Your task to perform on an android device: Search for vegetarian restaurants on Maps Image 0: 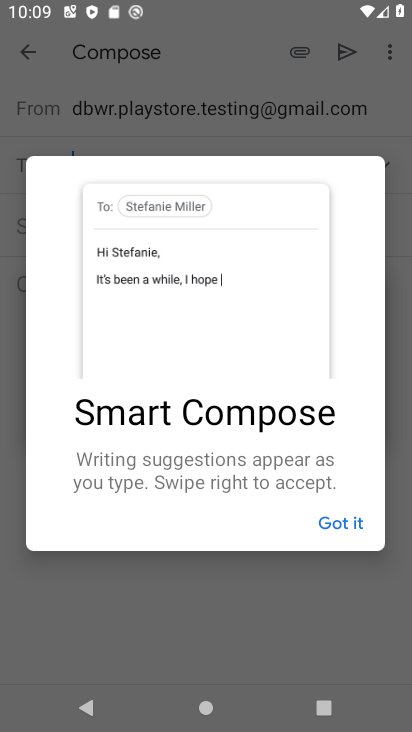
Step 0: press home button
Your task to perform on an android device: Search for vegetarian restaurants on Maps Image 1: 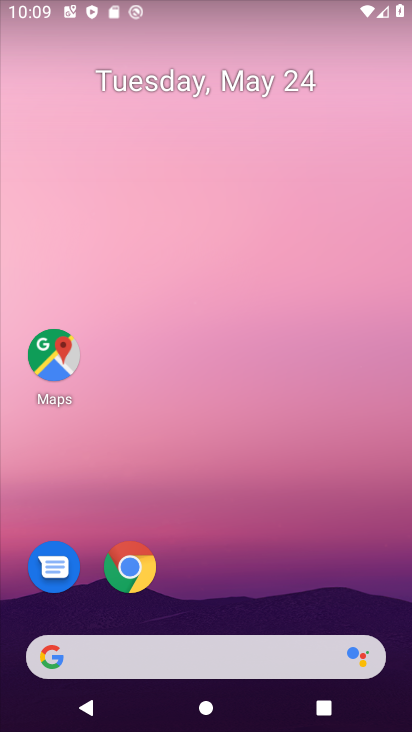
Step 1: click (55, 364)
Your task to perform on an android device: Search for vegetarian restaurants on Maps Image 2: 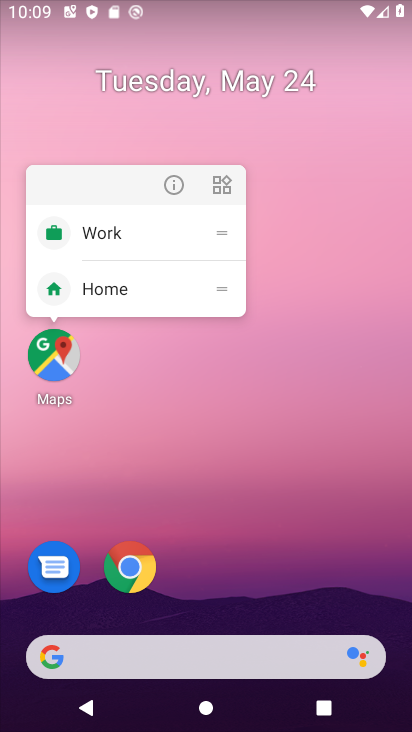
Step 2: click (55, 366)
Your task to perform on an android device: Search for vegetarian restaurants on Maps Image 3: 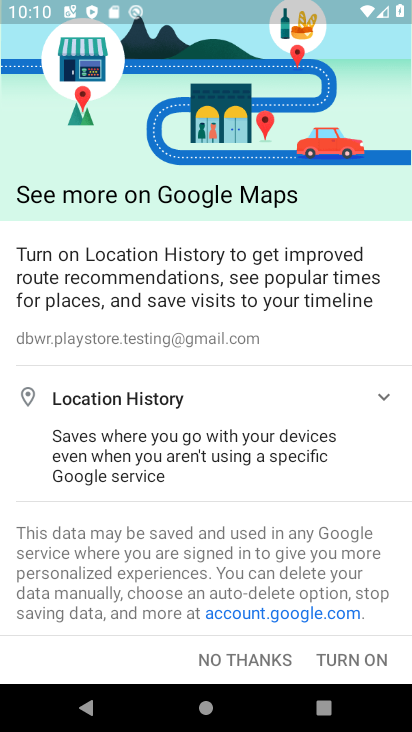
Step 3: press back button
Your task to perform on an android device: Search for vegetarian restaurants on Maps Image 4: 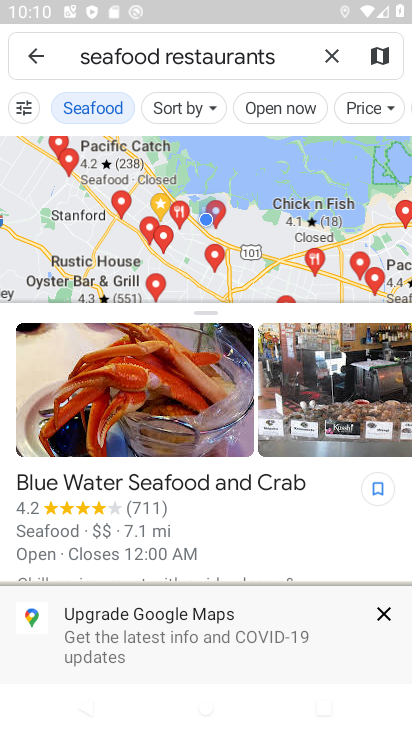
Step 4: click (330, 58)
Your task to perform on an android device: Search for vegetarian restaurants on Maps Image 5: 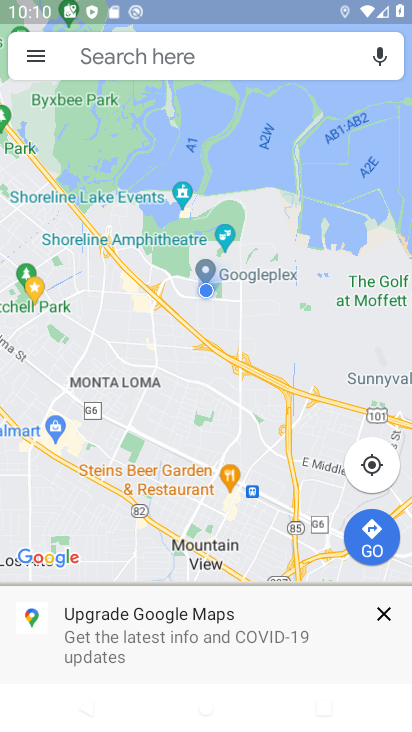
Step 5: click (126, 61)
Your task to perform on an android device: Search for vegetarian restaurants on Maps Image 6: 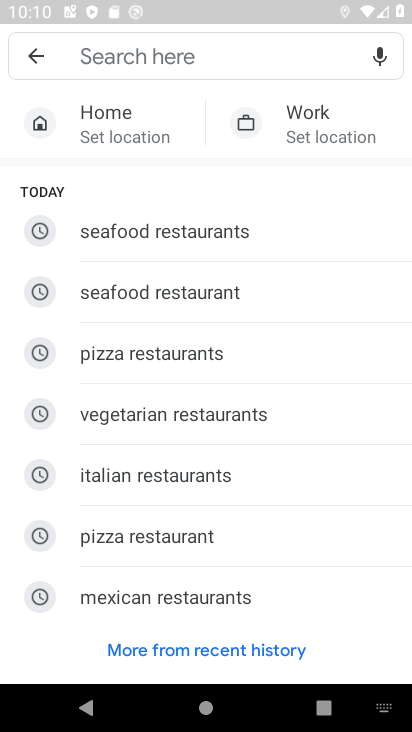
Step 6: type "vegetarian restaurants"
Your task to perform on an android device: Search for vegetarian restaurants on Maps Image 7: 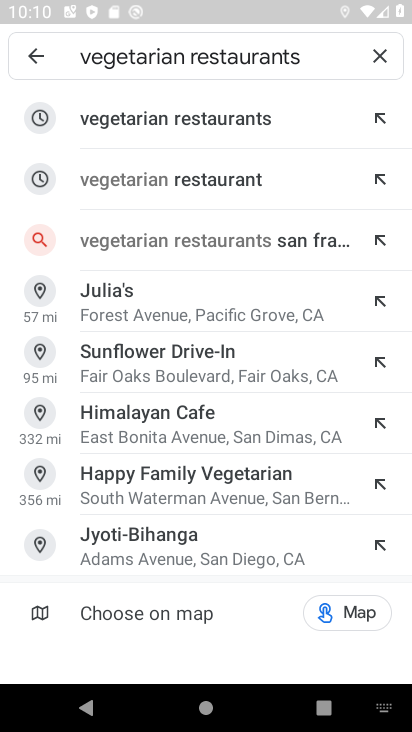
Step 7: click (192, 118)
Your task to perform on an android device: Search for vegetarian restaurants on Maps Image 8: 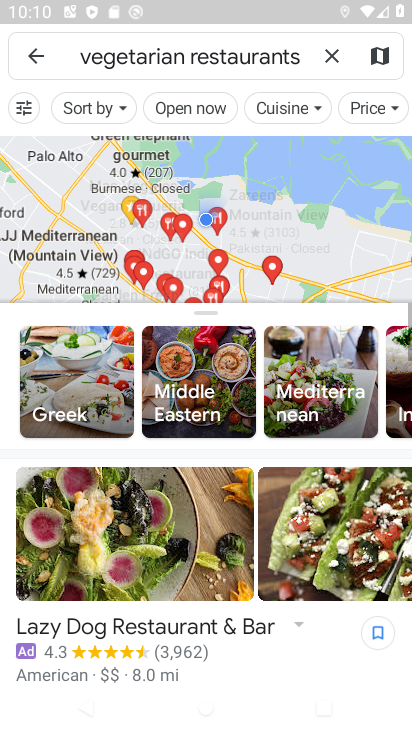
Step 8: task complete